Your task to perform on an android device: Searchfor good French restaurants Image 0: 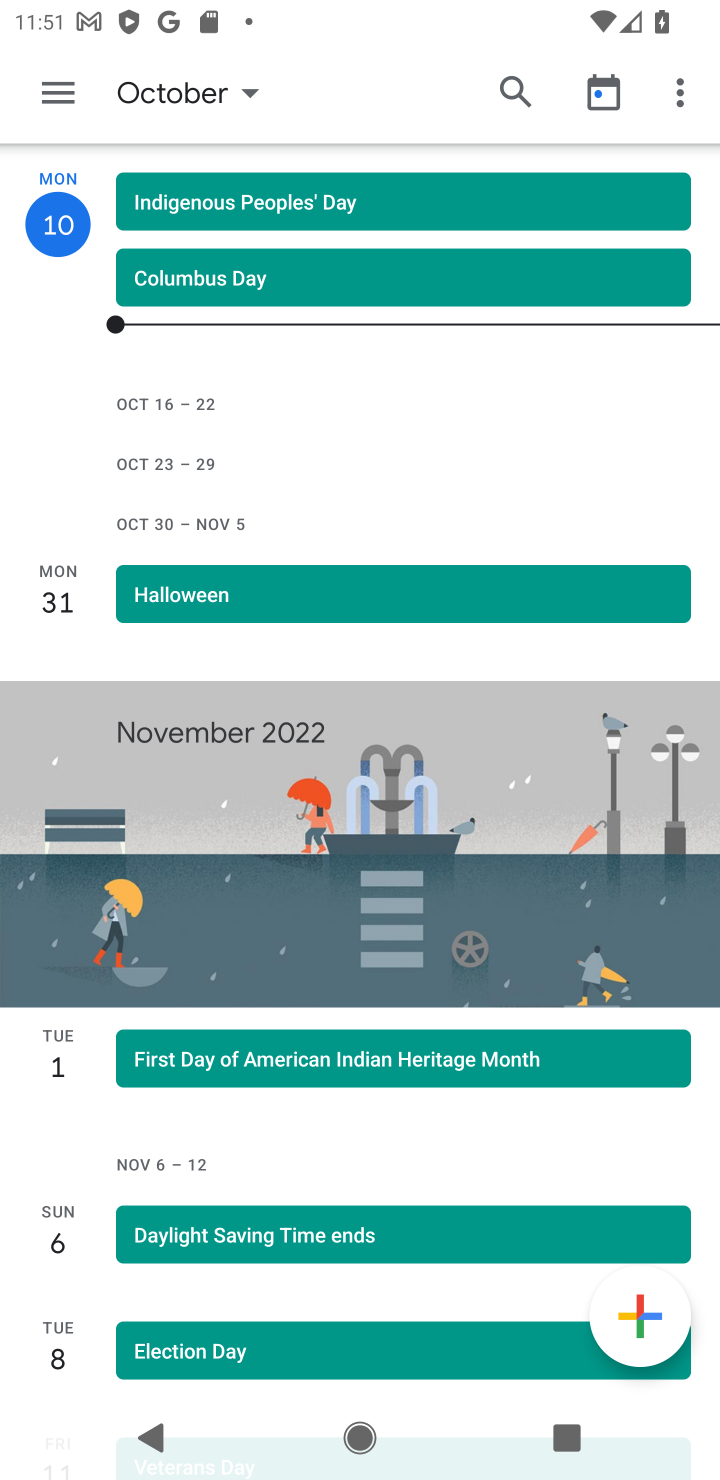
Step 0: press home button
Your task to perform on an android device: Searchfor good French restaurants Image 1: 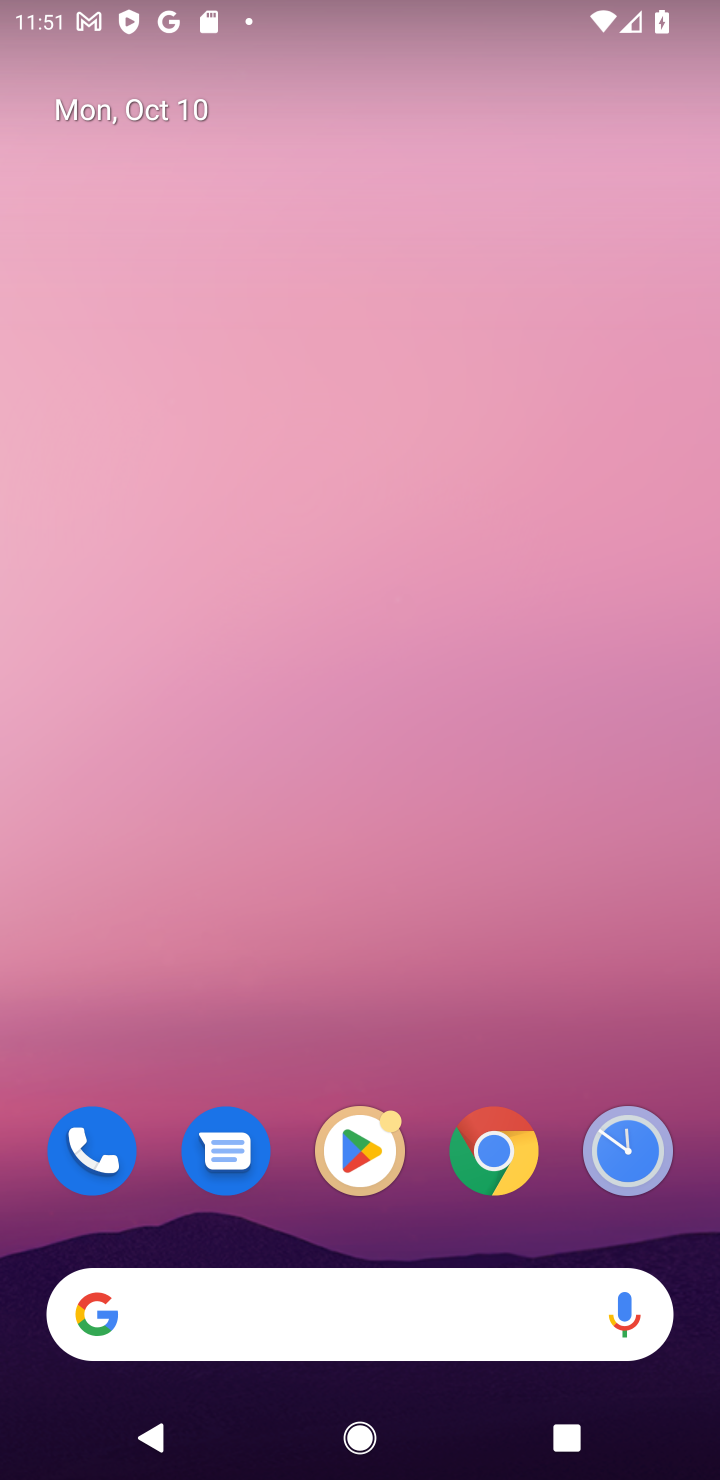
Step 1: click (263, 1309)
Your task to perform on an android device: Searchfor good French restaurants Image 2: 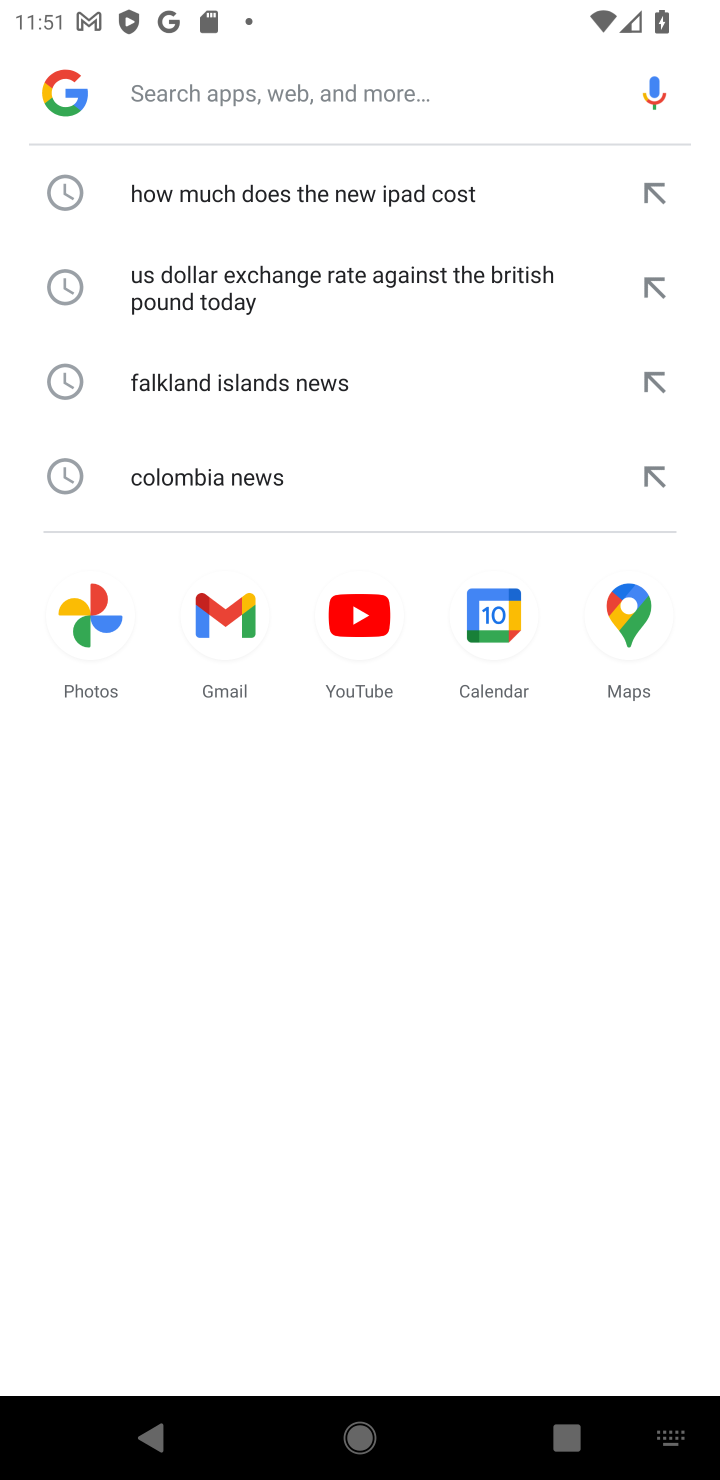
Step 2: type "Searchfor good French restaurants"
Your task to perform on an android device: Searchfor good French restaurants Image 3: 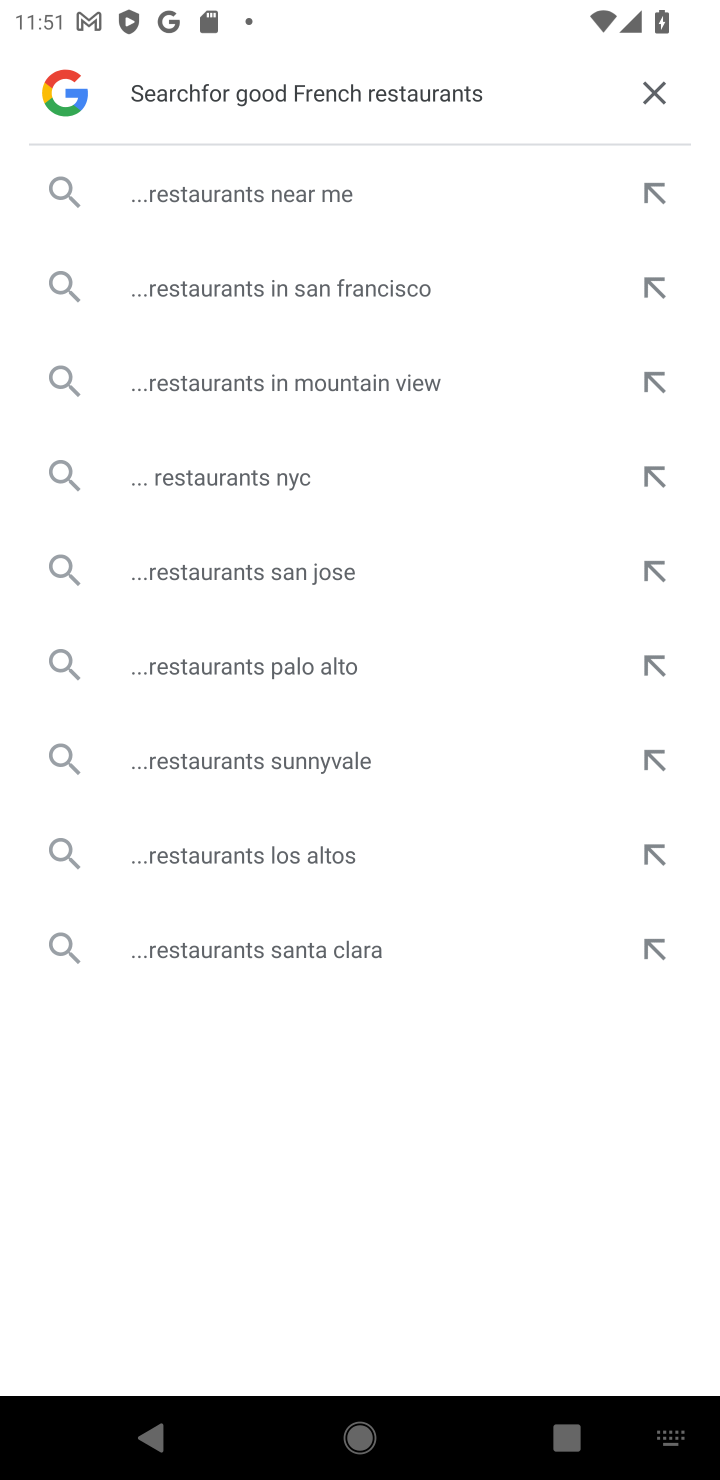
Step 3: click (192, 192)
Your task to perform on an android device: Searchfor good French restaurants Image 4: 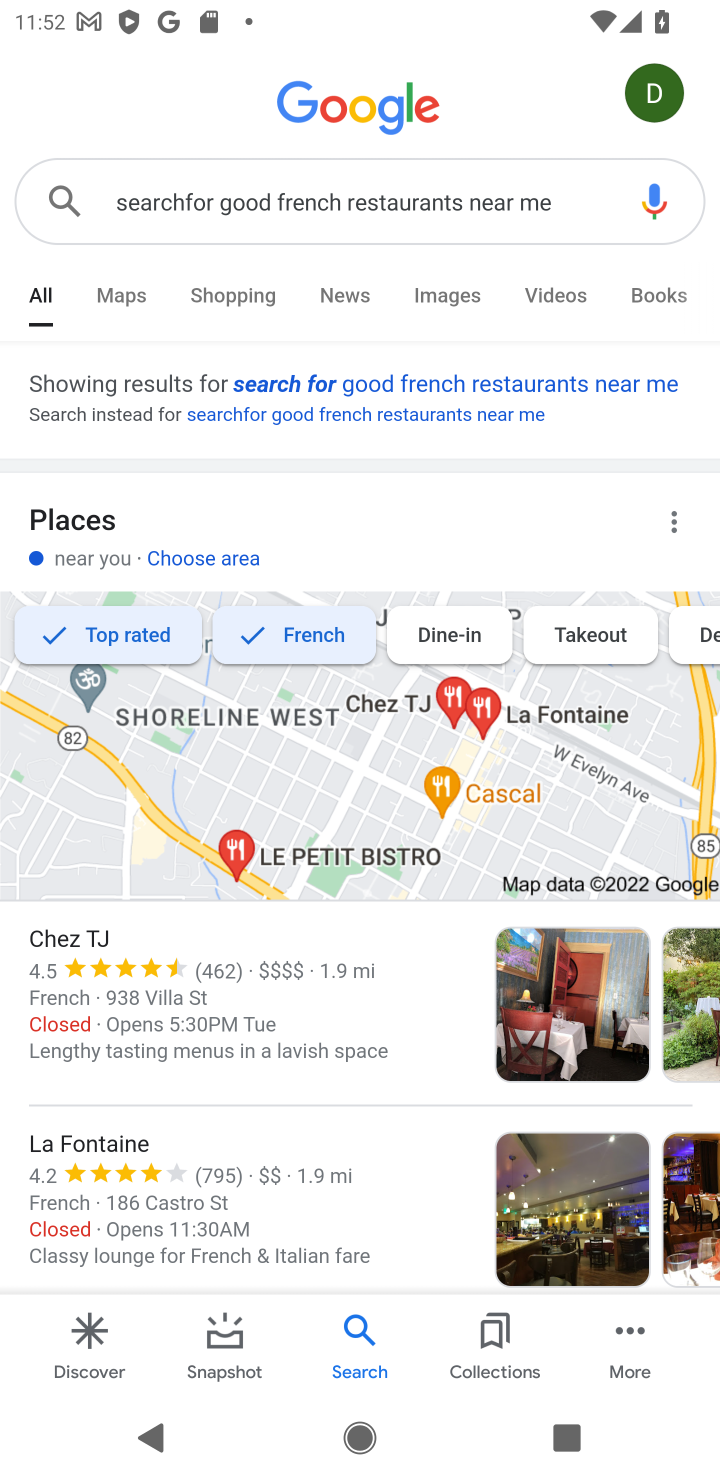
Step 4: task complete